Your task to perform on an android device: change alarm snooze length Image 0: 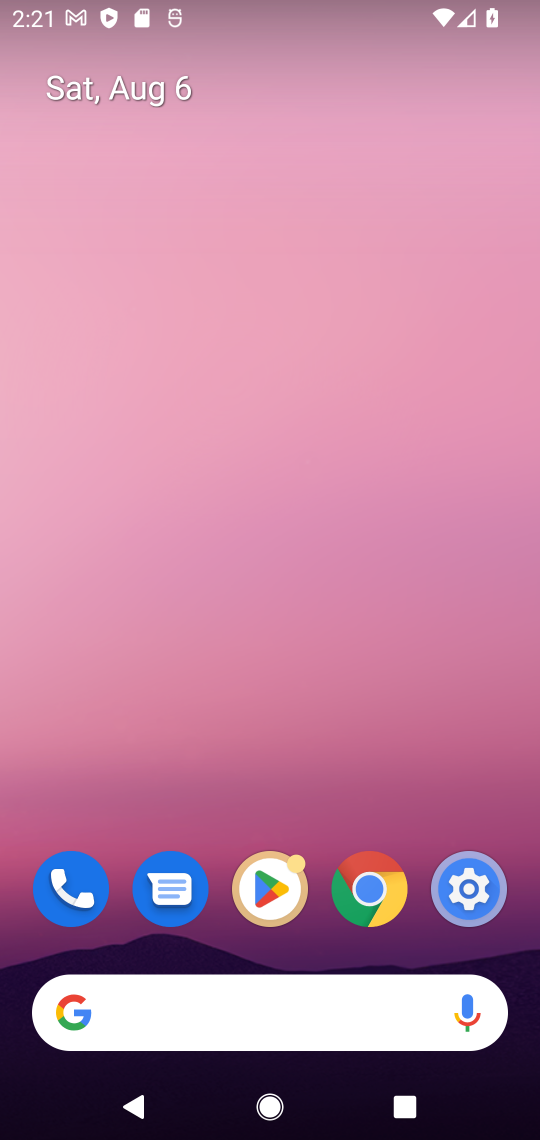
Step 0: click (266, 426)
Your task to perform on an android device: change alarm snooze length Image 1: 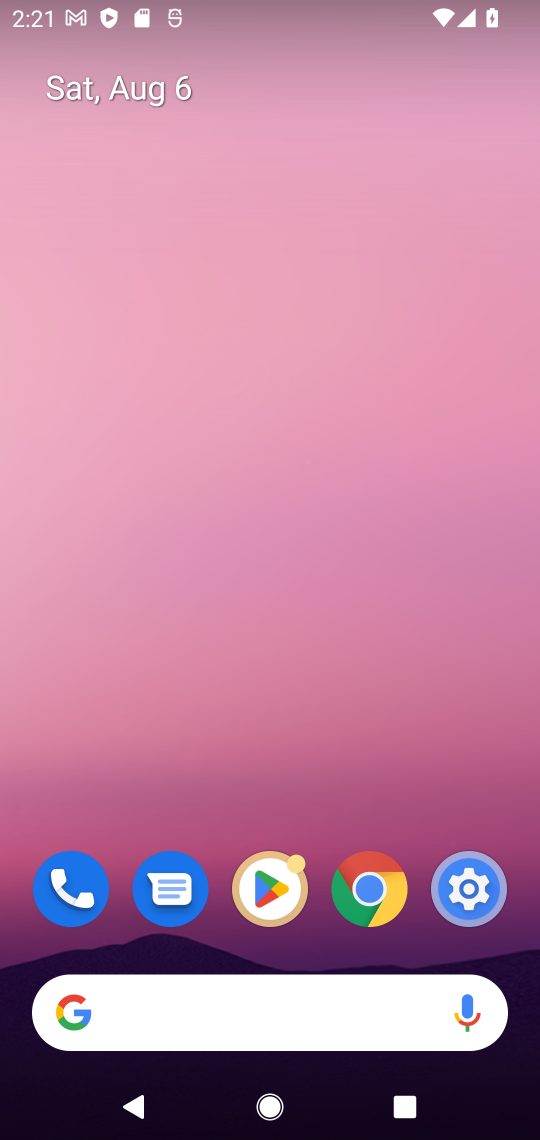
Step 1: click (409, 11)
Your task to perform on an android device: change alarm snooze length Image 2: 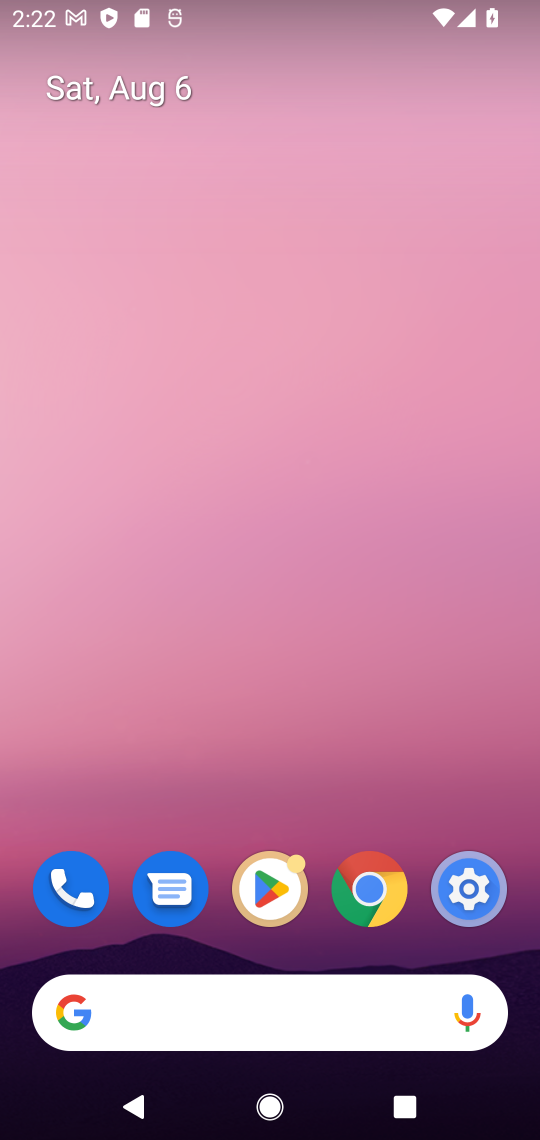
Step 2: drag from (223, 905) to (142, 3)
Your task to perform on an android device: change alarm snooze length Image 3: 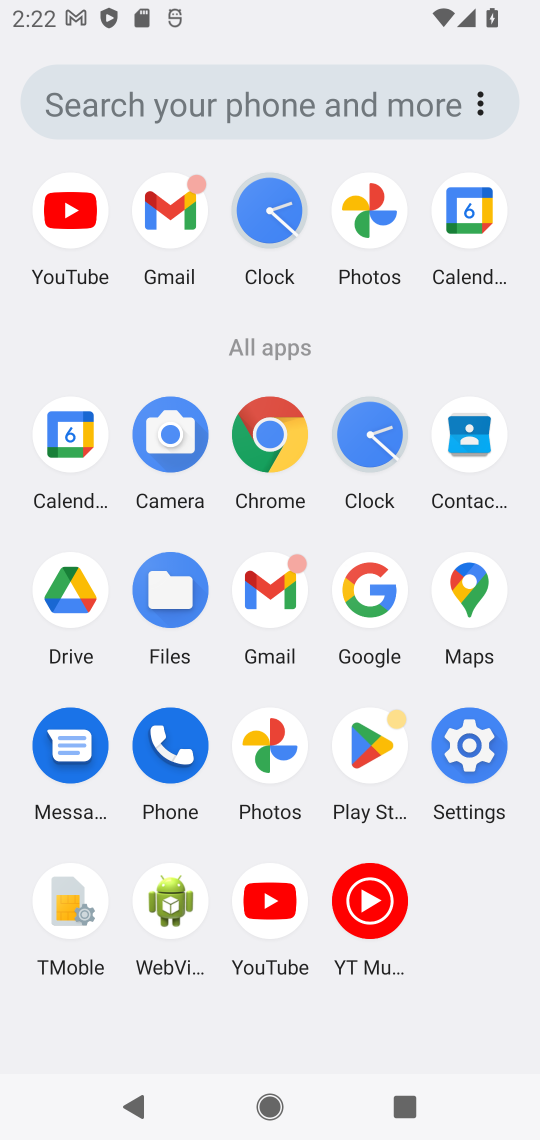
Step 3: click (382, 437)
Your task to perform on an android device: change alarm snooze length Image 4: 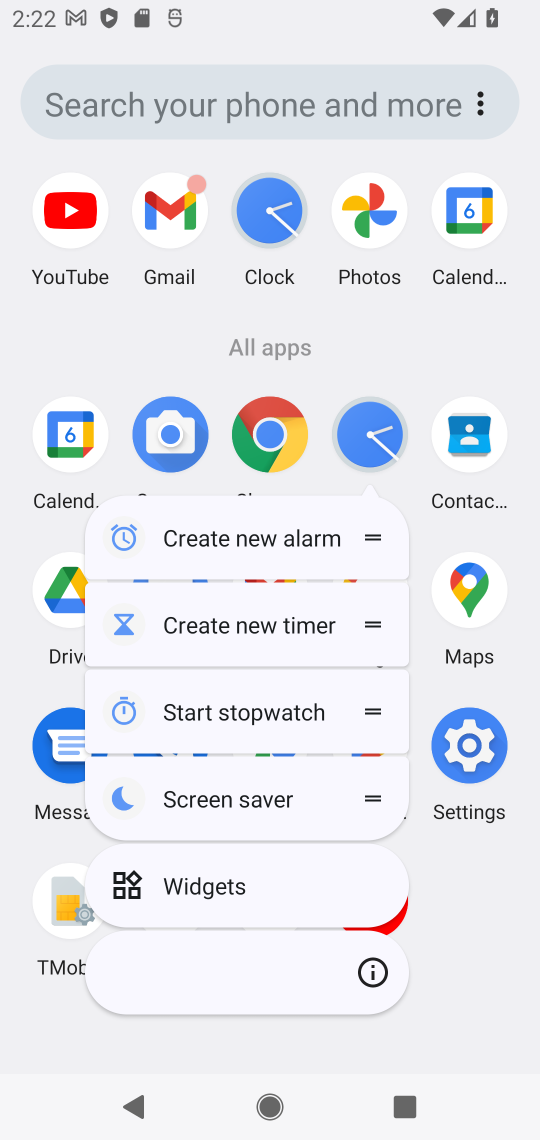
Step 4: click (359, 983)
Your task to perform on an android device: change alarm snooze length Image 5: 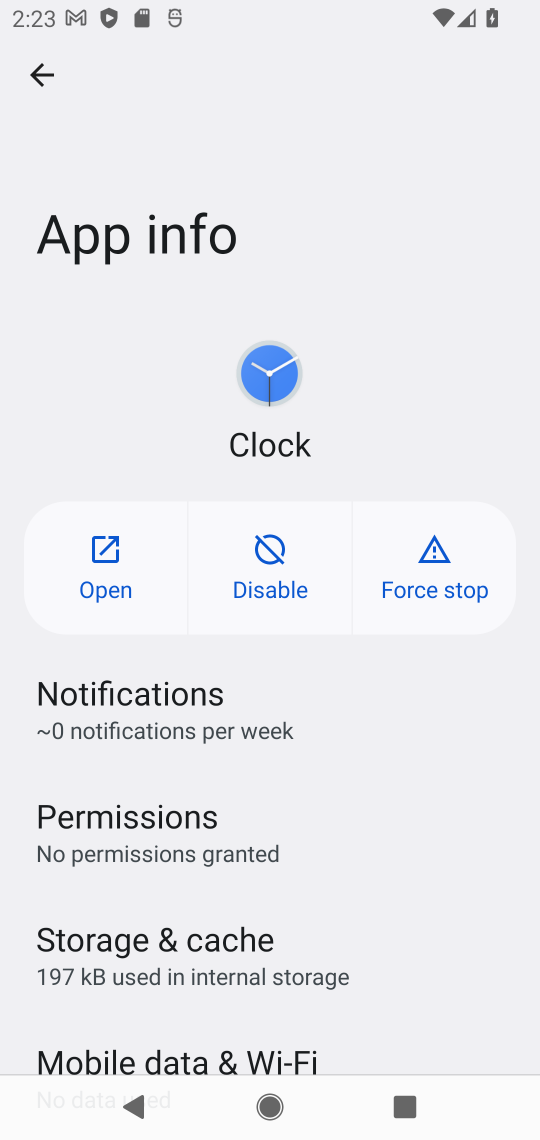
Step 5: click (106, 544)
Your task to perform on an android device: change alarm snooze length Image 6: 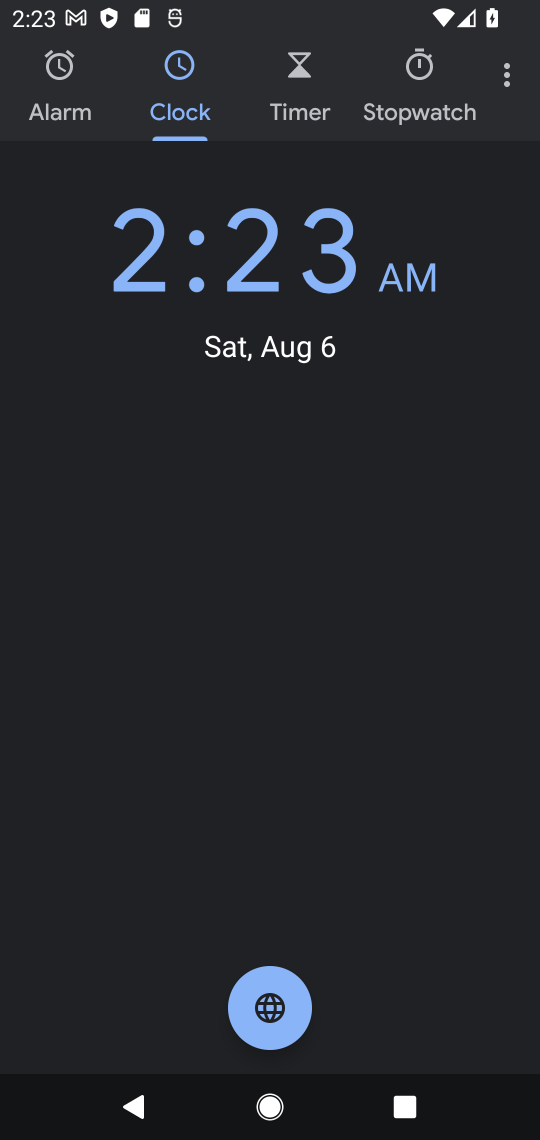
Step 6: drag from (199, 838) to (380, 248)
Your task to perform on an android device: change alarm snooze length Image 7: 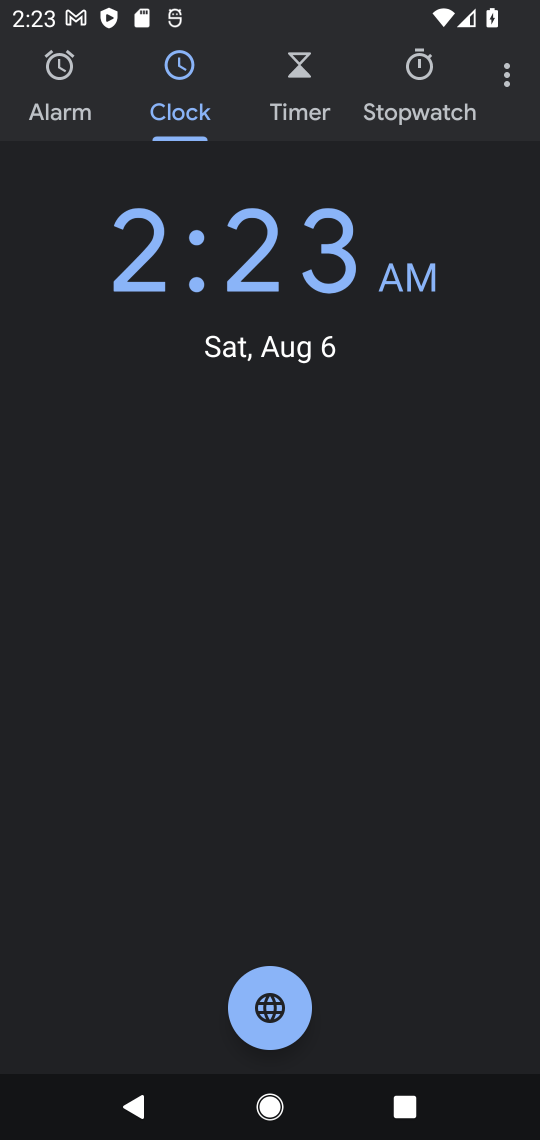
Step 7: drag from (505, 74) to (341, 140)
Your task to perform on an android device: change alarm snooze length Image 8: 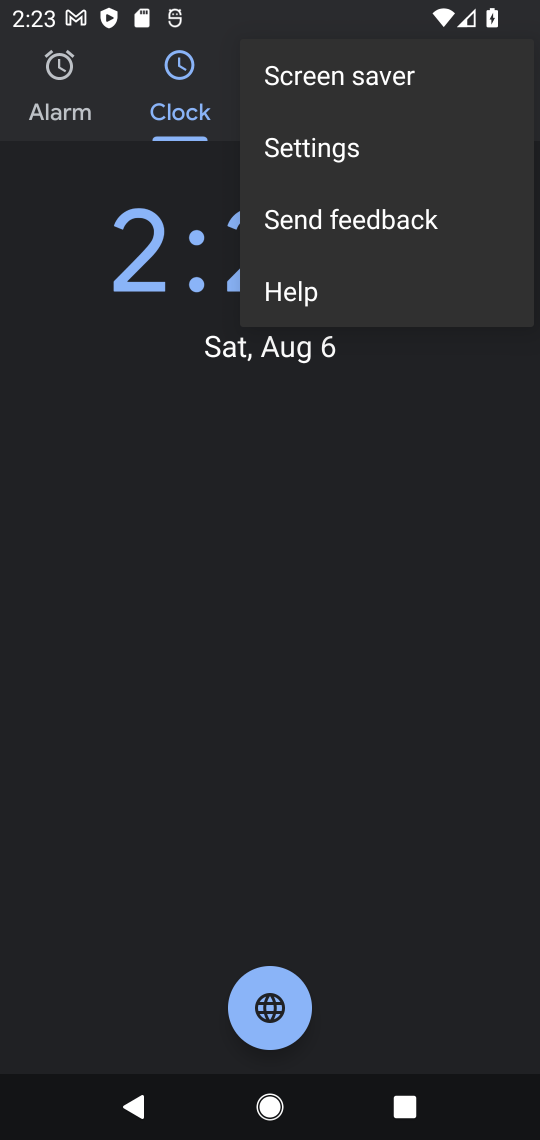
Step 8: click (340, 142)
Your task to perform on an android device: change alarm snooze length Image 9: 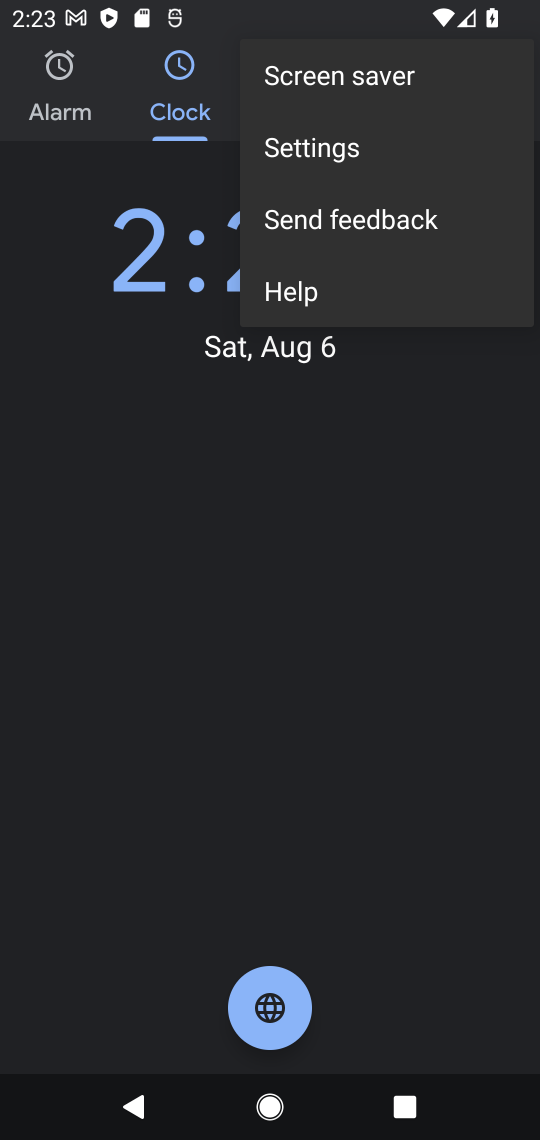
Step 9: click (338, 142)
Your task to perform on an android device: change alarm snooze length Image 10: 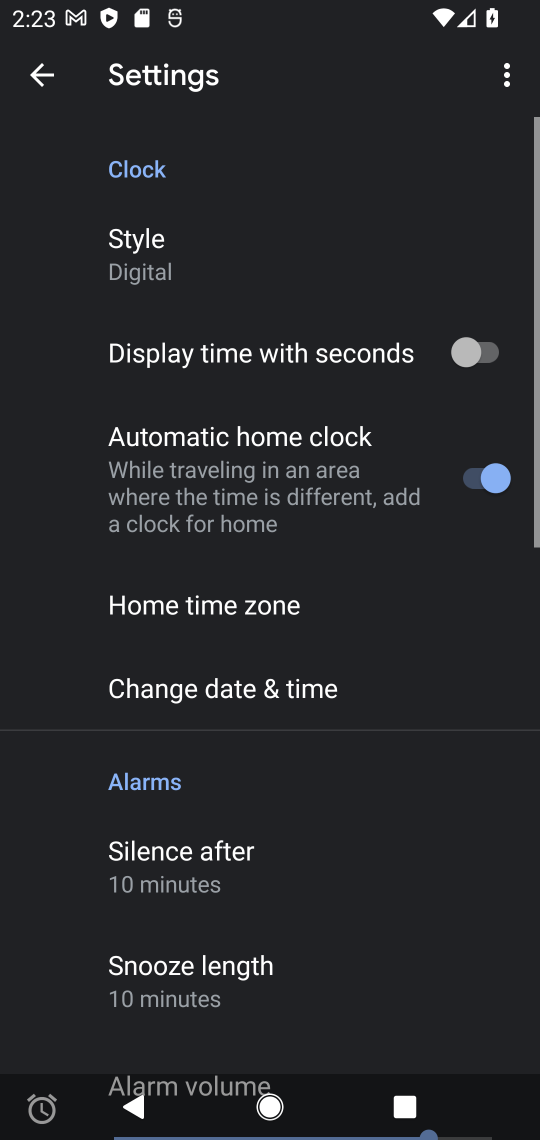
Step 10: drag from (274, 612) to (326, 19)
Your task to perform on an android device: change alarm snooze length Image 11: 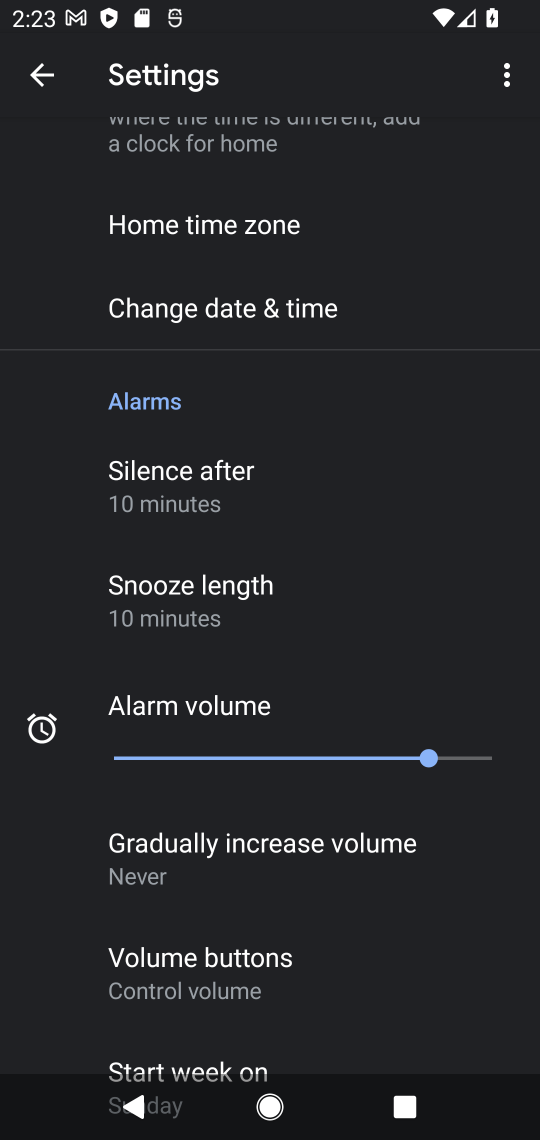
Step 11: drag from (360, 703) to (415, 297)
Your task to perform on an android device: change alarm snooze length Image 12: 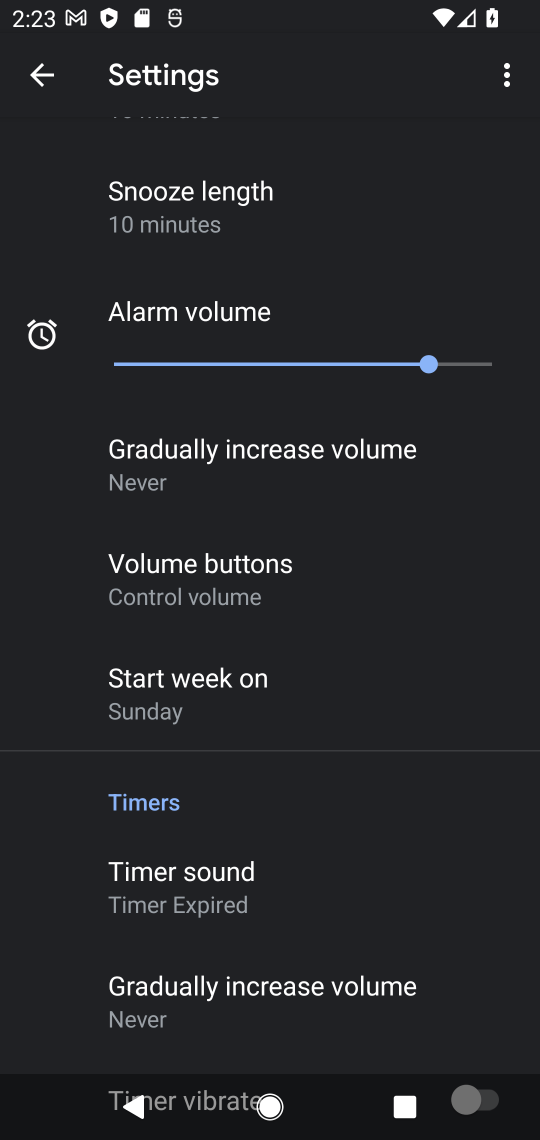
Step 12: click (188, 192)
Your task to perform on an android device: change alarm snooze length Image 13: 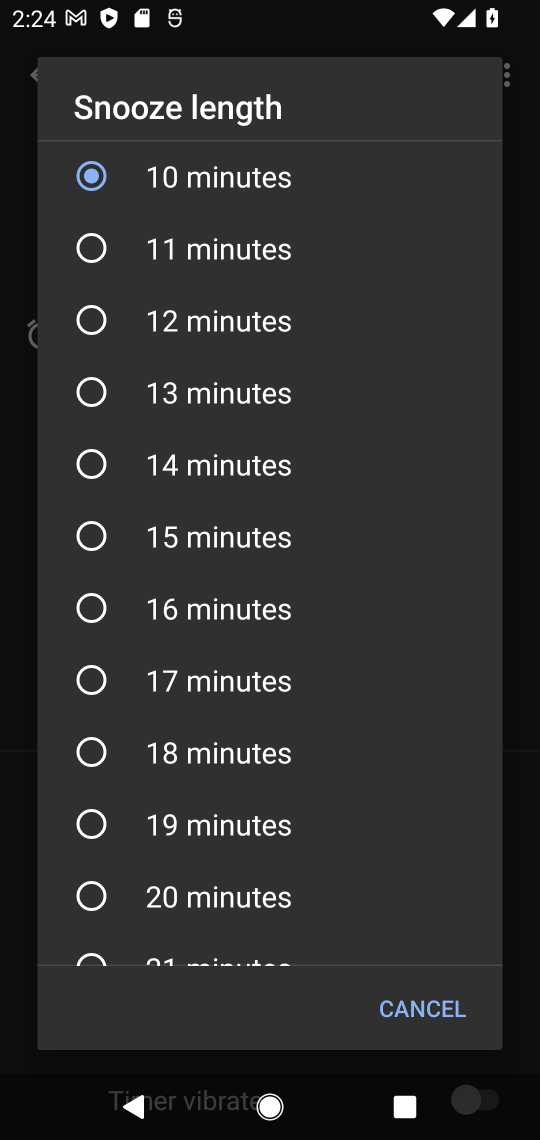
Step 13: drag from (270, 308) to (317, 1044)
Your task to perform on an android device: change alarm snooze length Image 14: 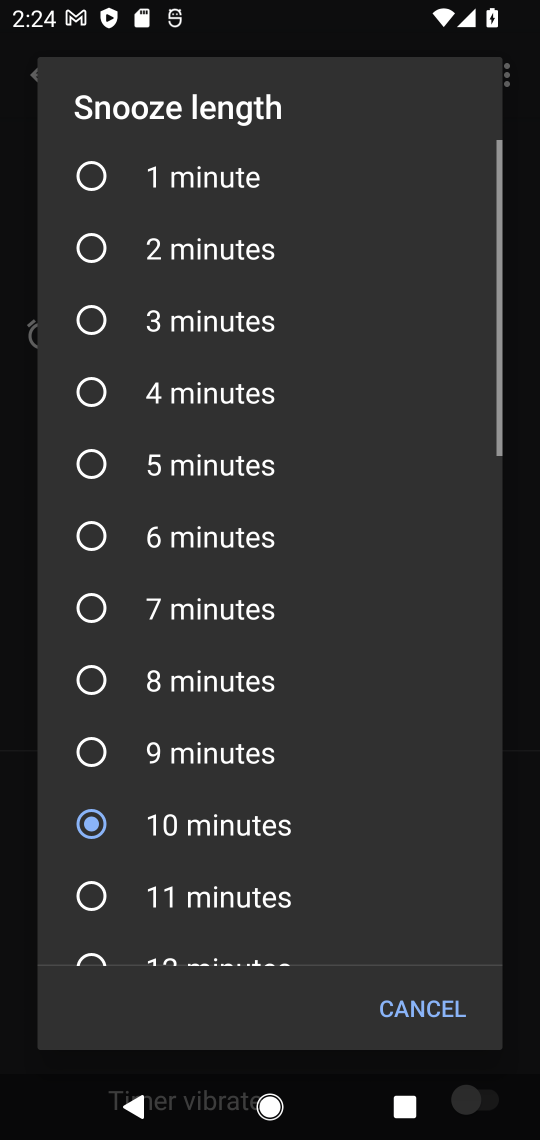
Step 14: drag from (227, 700) to (334, 114)
Your task to perform on an android device: change alarm snooze length Image 15: 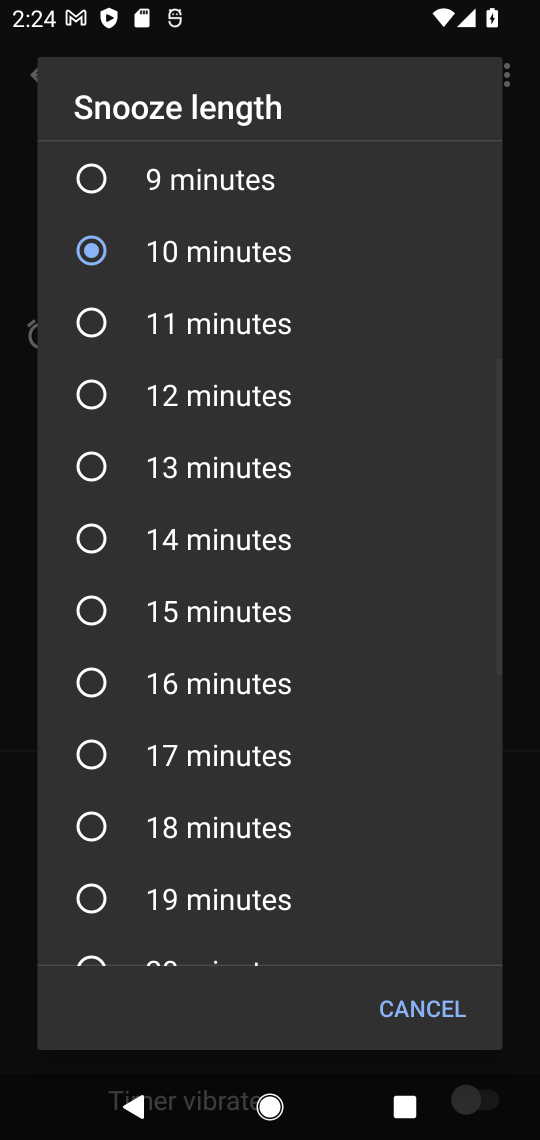
Step 15: drag from (169, 395) to (259, 1136)
Your task to perform on an android device: change alarm snooze length Image 16: 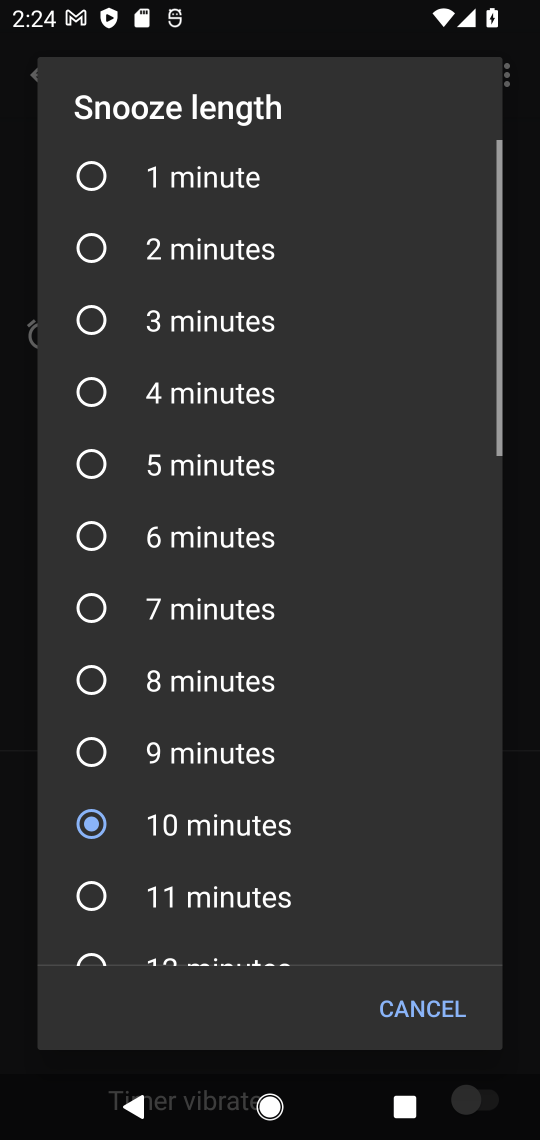
Step 16: drag from (146, 220) to (250, 1006)
Your task to perform on an android device: change alarm snooze length Image 17: 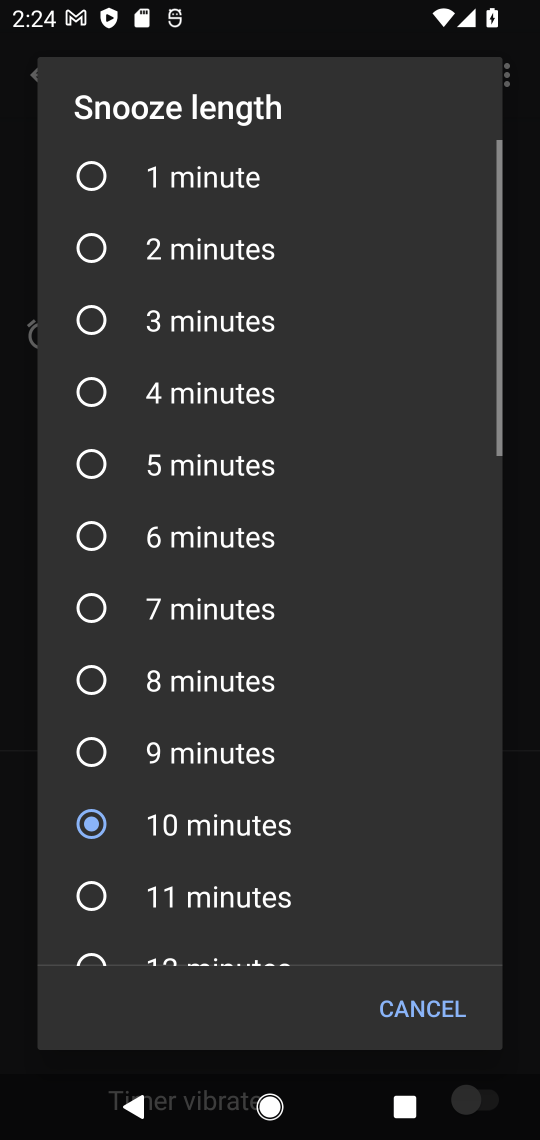
Step 17: click (107, 181)
Your task to perform on an android device: change alarm snooze length Image 18: 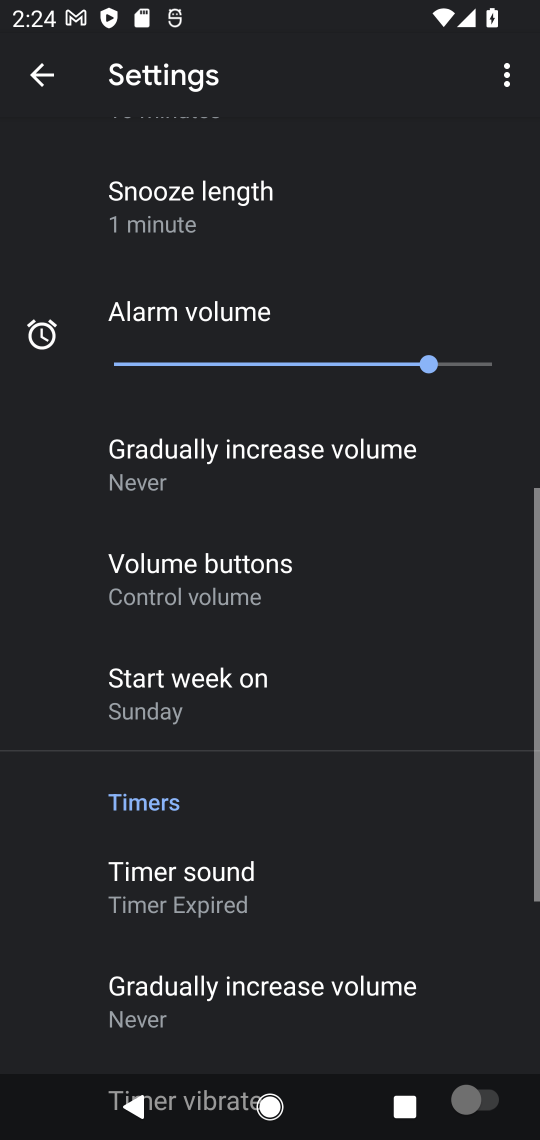
Step 18: task complete